Your task to perform on an android device: turn off improve location accuracy Image 0: 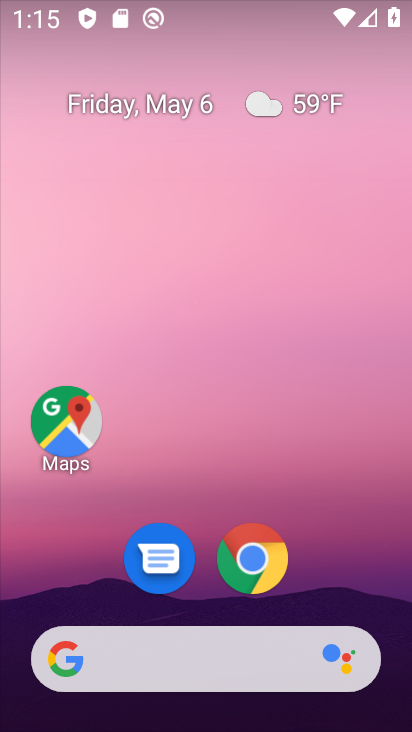
Step 0: drag from (216, 724) to (212, 138)
Your task to perform on an android device: turn off improve location accuracy Image 1: 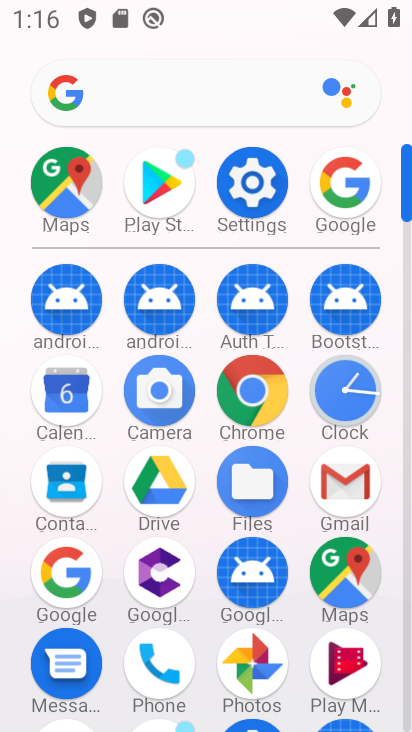
Step 1: click (259, 185)
Your task to perform on an android device: turn off improve location accuracy Image 2: 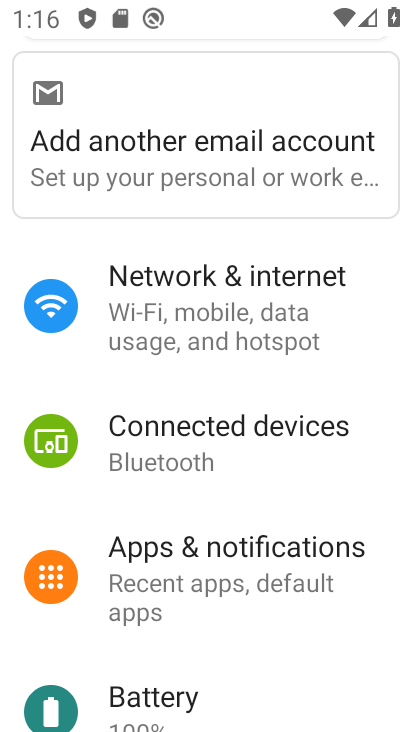
Step 2: drag from (215, 658) to (219, 250)
Your task to perform on an android device: turn off improve location accuracy Image 3: 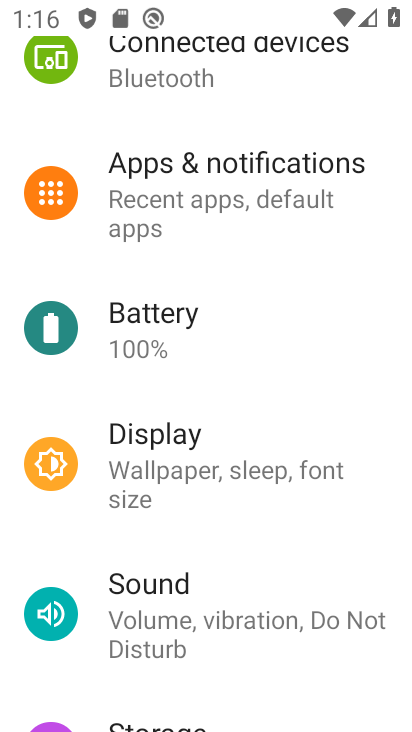
Step 3: drag from (205, 691) to (219, 399)
Your task to perform on an android device: turn off improve location accuracy Image 4: 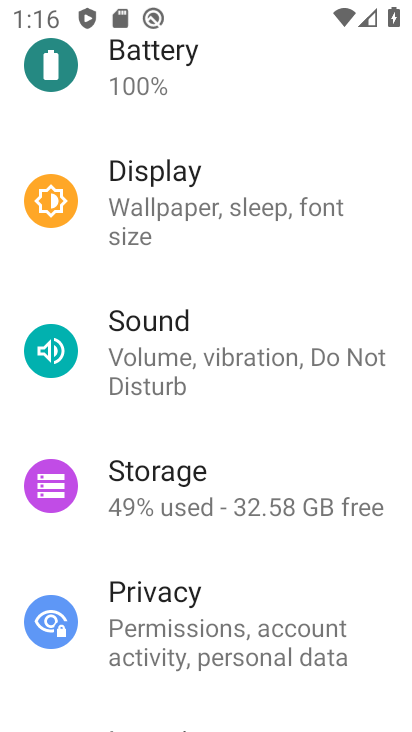
Step 4: drag from (211, 668) to (213, 320)
Your task to perform on an android device: turn off improve location accuracy Image 5: 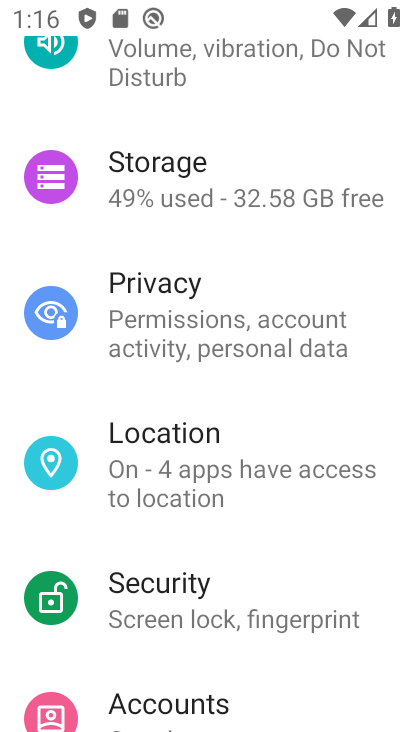
Step 5: click (157, 477)
Your task to perform on an android device: turn off improve location accuracy Image 6: 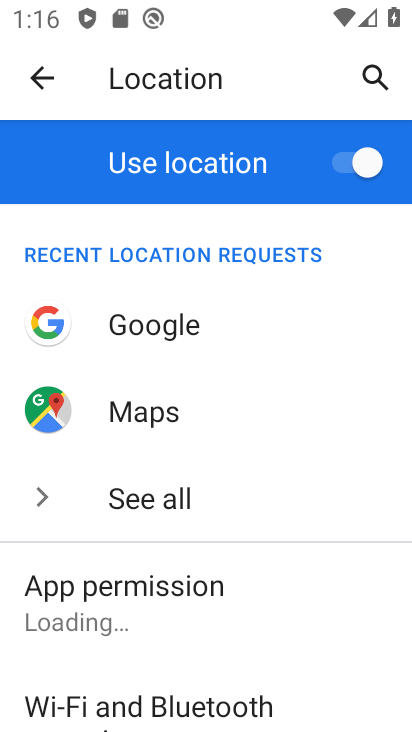
Step 6: drag from (165, 662) to (182, 286)
Your task to perform on an android device: turn off improve location accuracy Image 7: 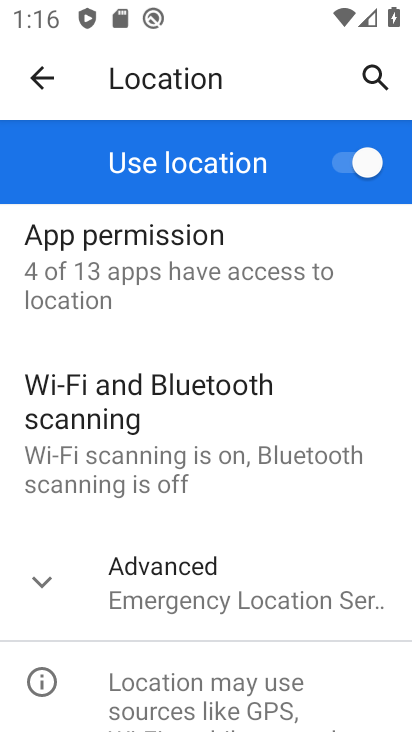
Step 7: click (169, 584)
Your task to perform on an android device: turn off improve location accuracy Image 8: 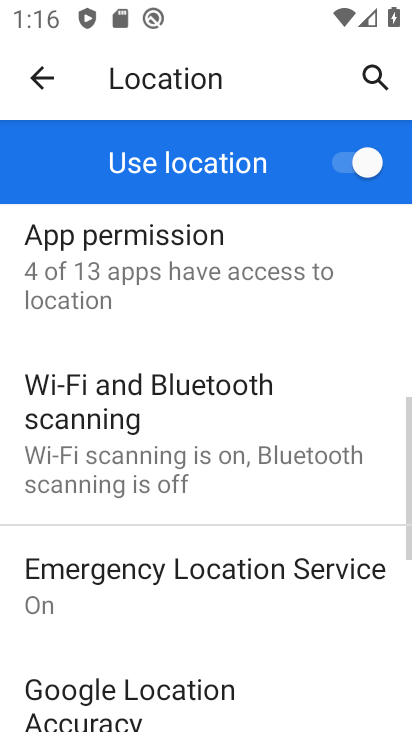
Step 8: drag from (233, 706) to (241, 358)
Your task to perform on an android device: turn off improve location accuracy Image 9: 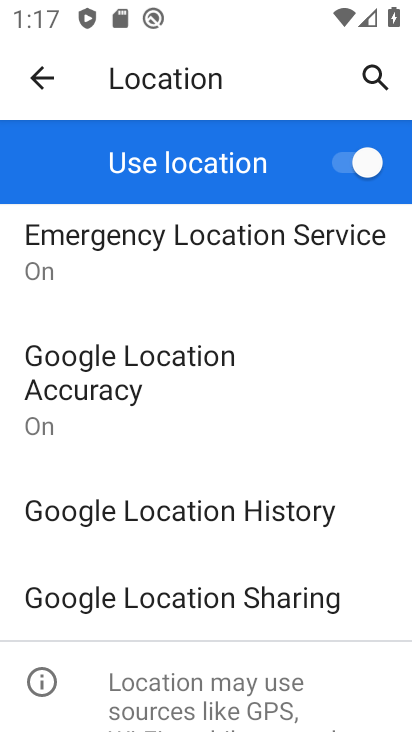
Step 9: click (145, 366)
Your task to perform on an android device: turn off improve location accuracy Image 10: 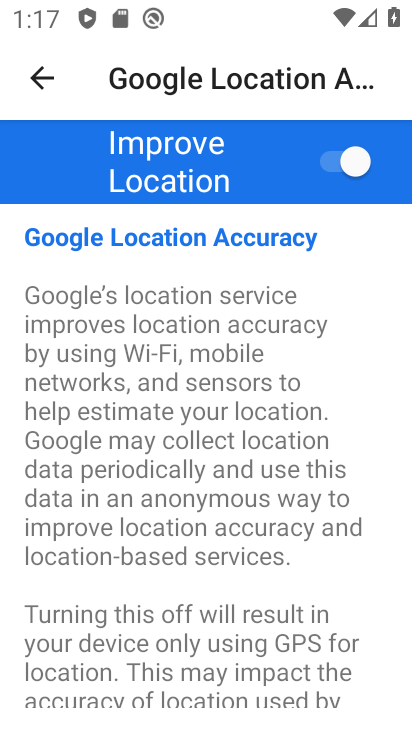
Step 10: click (342, 156)
Your task to perform on an android device: turn off improve location accuracy Image 11: 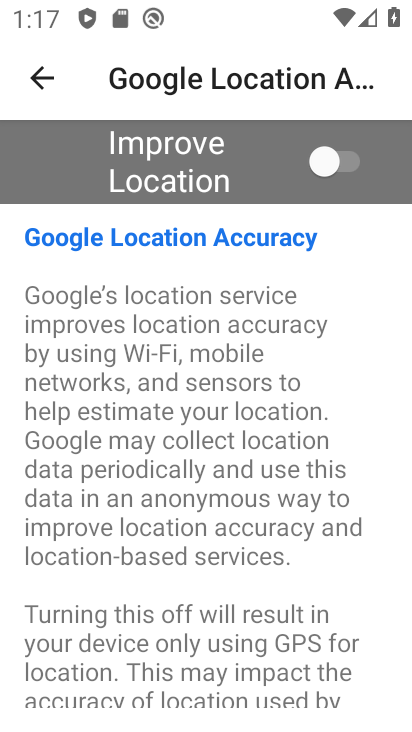
Step 11: task complete